Your task to perform on an android device: Search for "lenovo thinkpad" on walmart.com, select the first entry, and add it to the cart. Image 0: 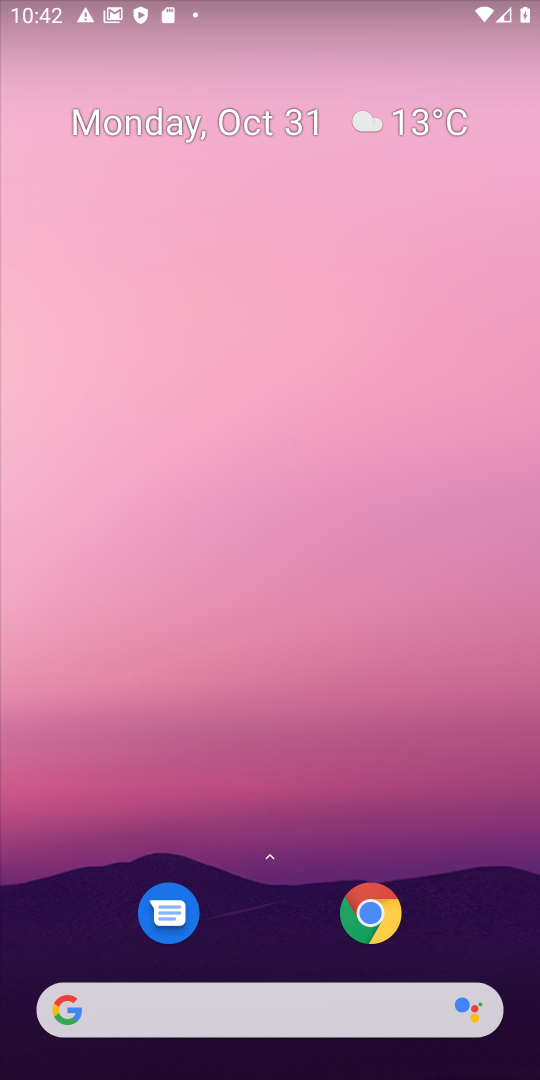
Step 0: click (201, 1027)
Your task to perform on an android device: Search for "lenovo thinkpad" on walmart.com, select the first entry, and add it to the cart. Image 1: 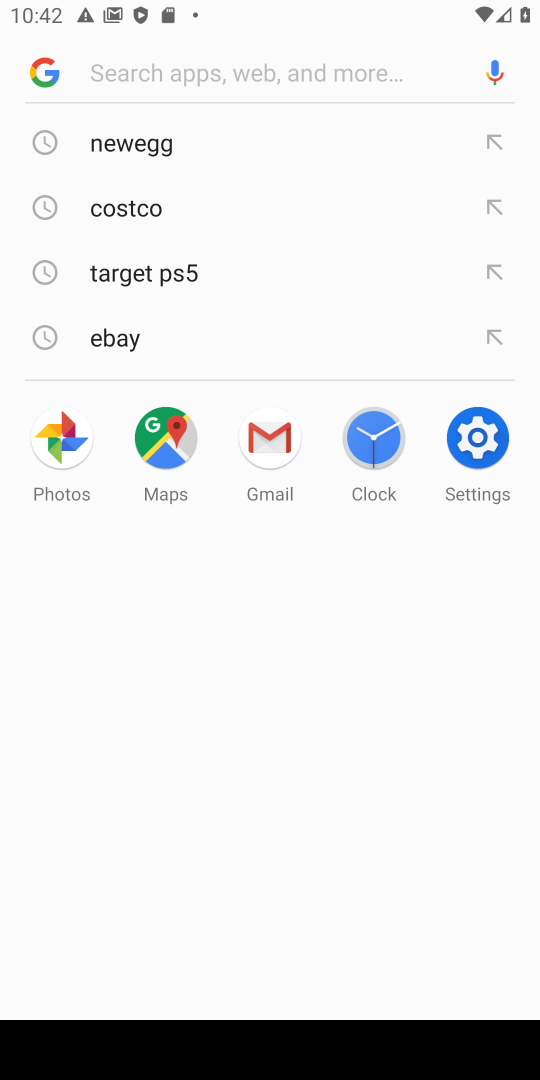
Step 1: type "walmart"
Your task to perform on an android device: Search for "lenovo thinkpad" on walmart.com, select the first entry, and add it to the cart. Image 2: 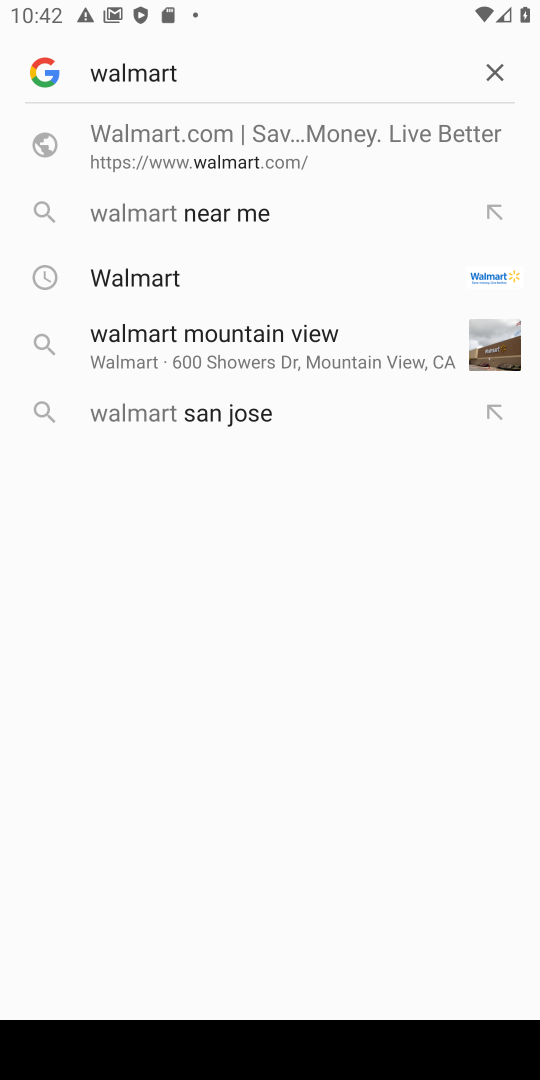
Step 2: click (103, 135)
Your task to perform on an android device: Search for "lenovo thinkpad" on walmart.com, select the first entry, and add it to the cart. Image 3: 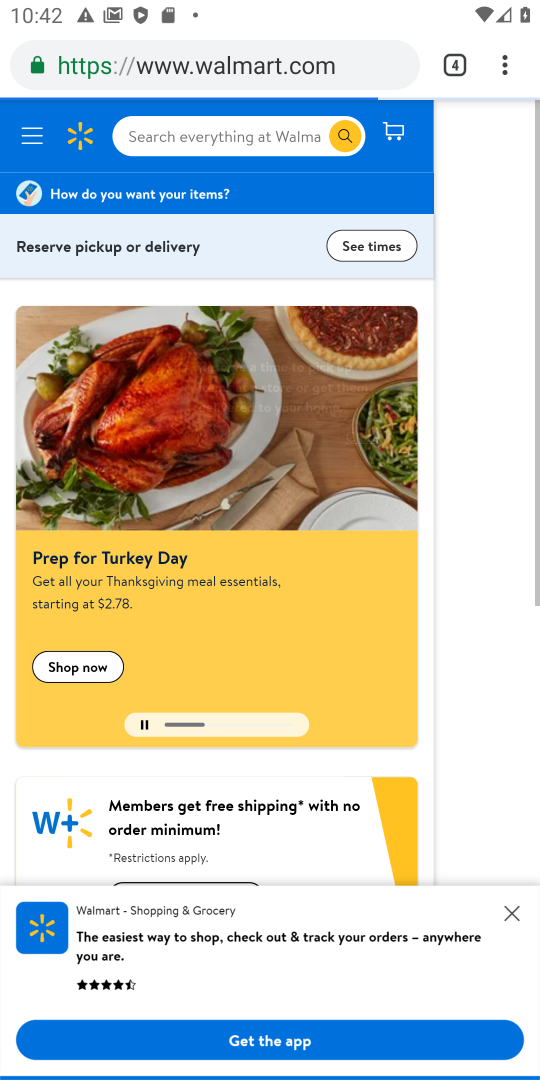
Step 3: click (266, 157)
Your task to perform on an android device: Search for "lenovo thinkpad" on walmart.com, select the first entry, and add it to the cart. Image 4: 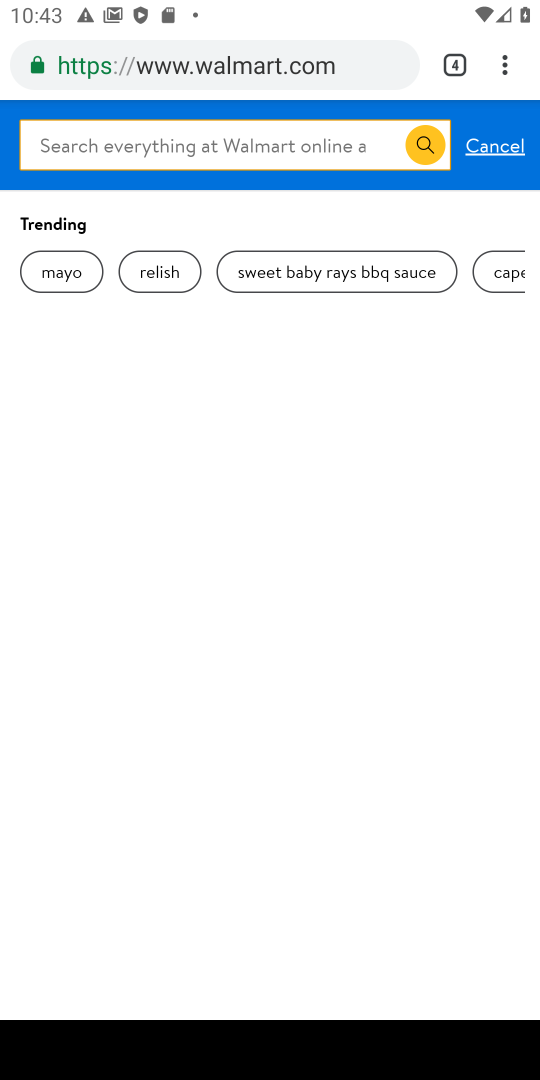
Step 4: type "lenovo thinkpad"
Your task to perform on an android device: Search for "lenovo thinkpad" on walmart.com, select the first entry, and add it to the cart. Image 5: 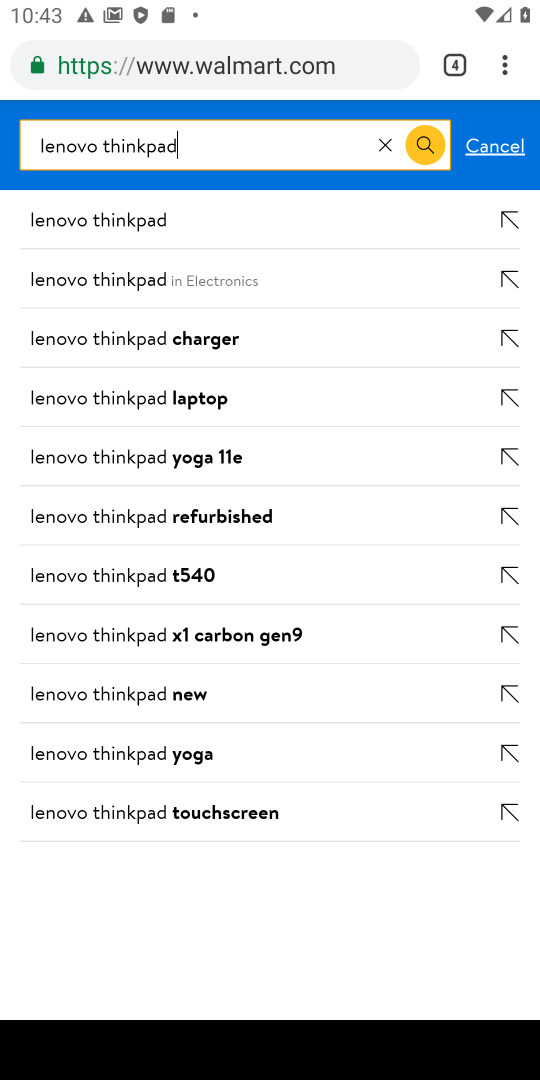
Step 5: click (219, 233)
Your task to perform on an android device: Search for "lenovo thinkpad" on walmart.com, select the first entry, and add it to the cart. Image 6: 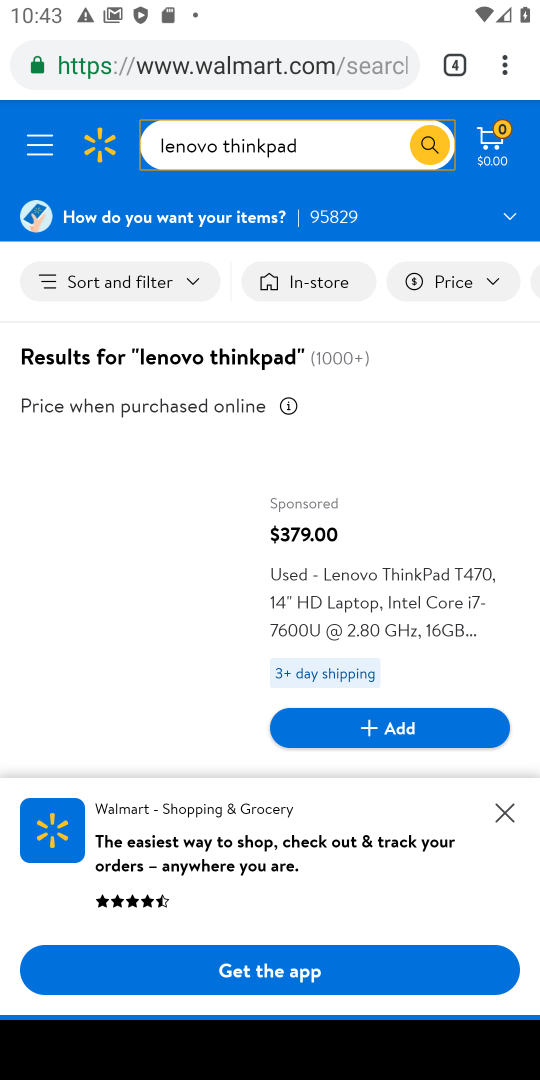
Step 6: click (403, 724)
Your task to perform on an android device: Search for "lenovo thinkpad" on walmart.com, select the first entry, and add it to the cart. Image 7: 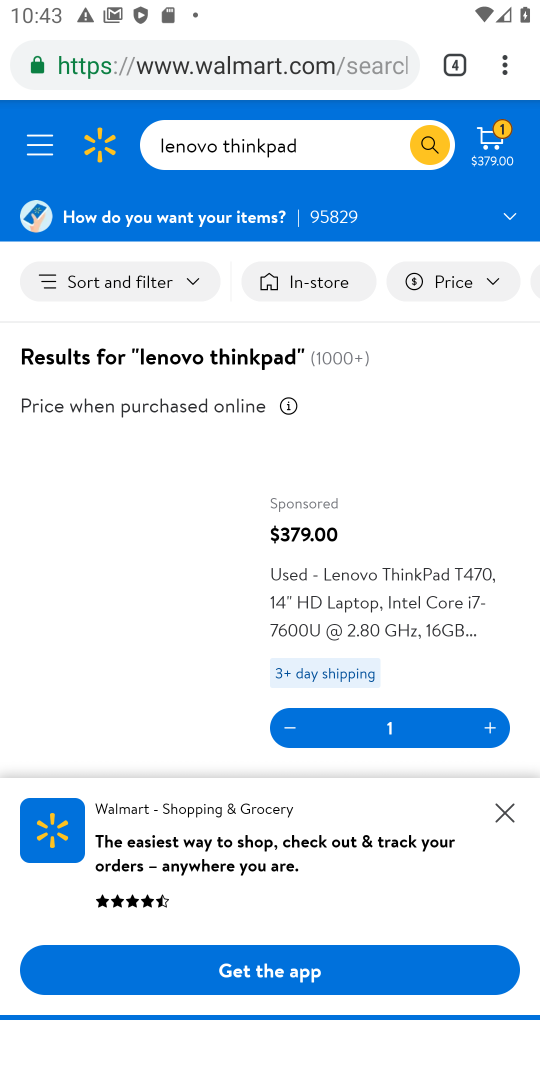
Step 7: click (517, 812)
Your task to perform on an android device: Search for "lenovo thinkpad" on walmart.com, select the first entry, and add it to the cart. Image 8: 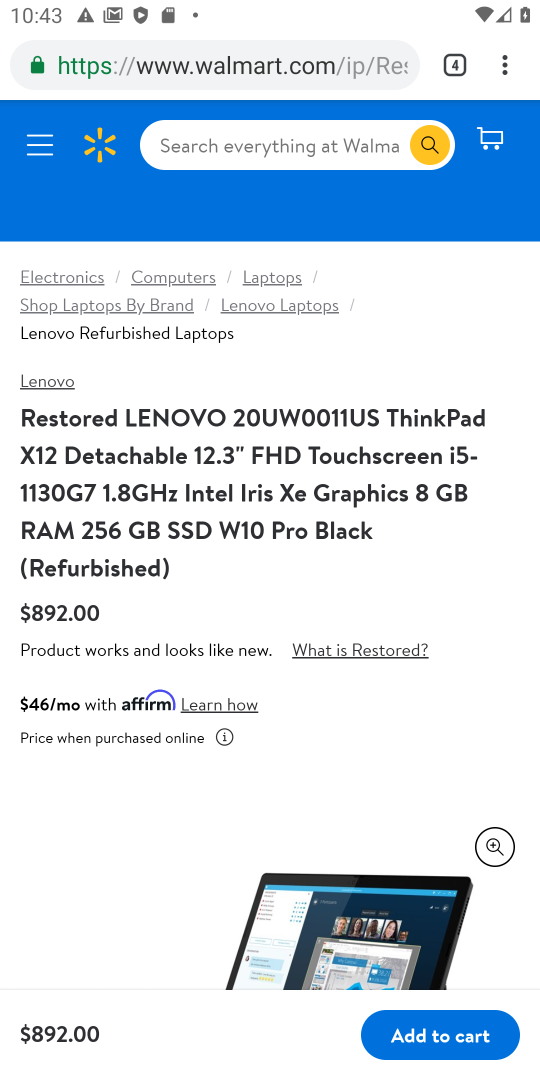
Step 8: click (464, 1046)
Your task to perform on an android device: Search for "lenovo thinkpad" on walmart.com, select the first entry, and add it to the cart. Image 9: 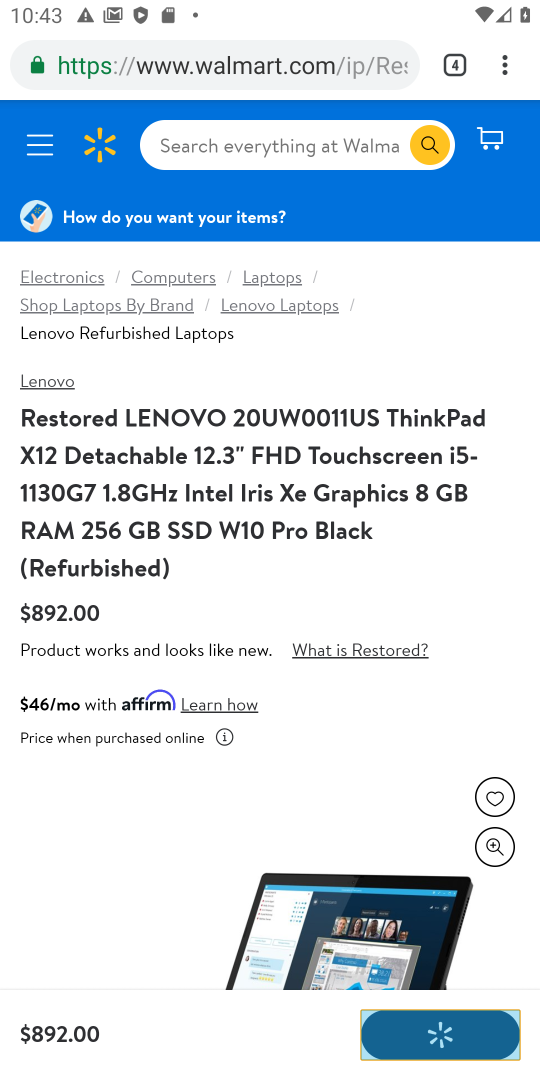
Step 9: task complete